Your task to perform on an android device: all mails in gmail Image 0: 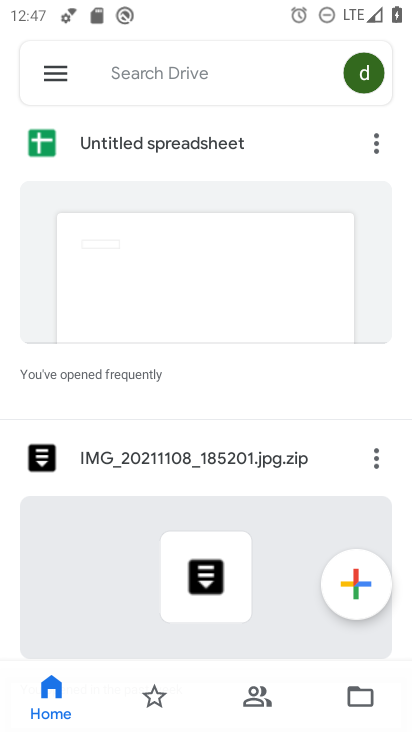
Step 0: press home button
Your task to perform on an android device: all mails in gmail Image 1: 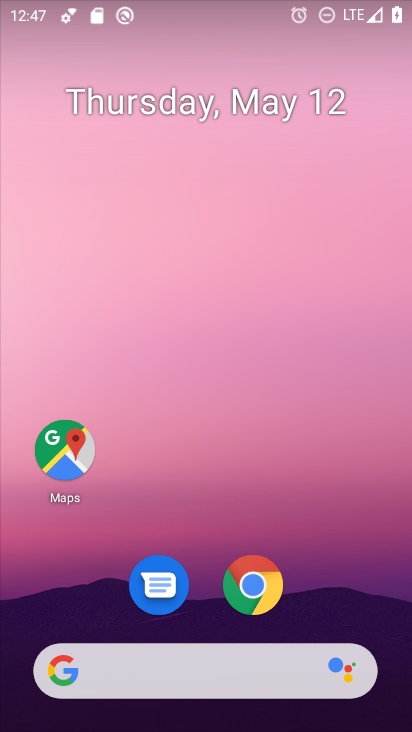
Step 1: drag from (243, 466) to (271, 30)
Your task to perform on an android device: all mails in gmail Image 2: 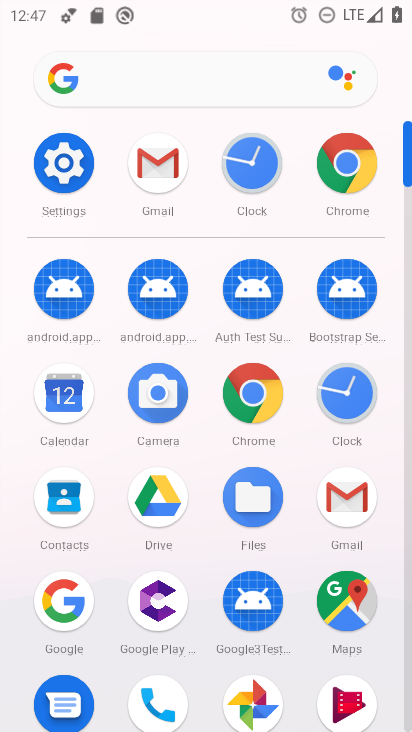
Step 2: click (171, 152)
Your task to perform on an android device: all mails in gmail Image 3: 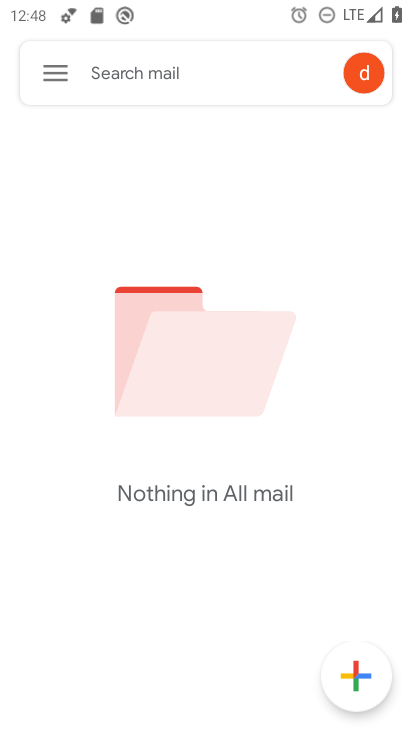
Step 3: task complete